Your task to perform on an android device: make emails show in primary in the gmail app Image 0: 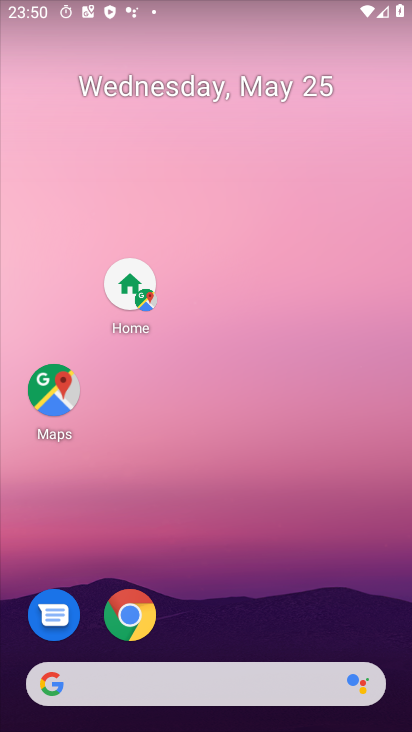
Step 0: press home button
Your task to perform on an android device: make emails show in primary in the gmail app Image 1: 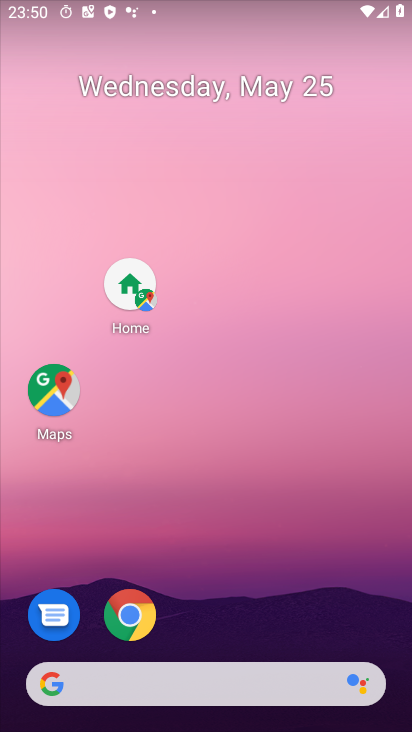
Step 1: drag from (198, 632) to (200, 224)
Your task to perform on an android device: make emails show in primary in the gmail app Image 2: 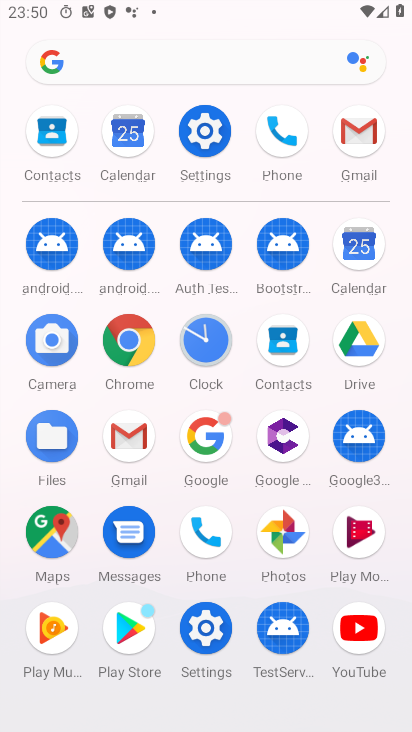
Step 2: click (359, 132)
Your task to perform on an android device: make emails show in primary in the gmail app Image 3: 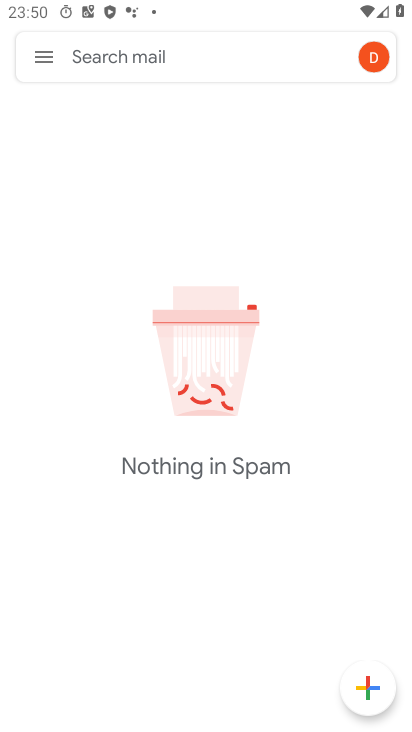
Step 3: click (35, 56)
Your task to perform on an android device: make emails show in primary in the gmail app Image 4: 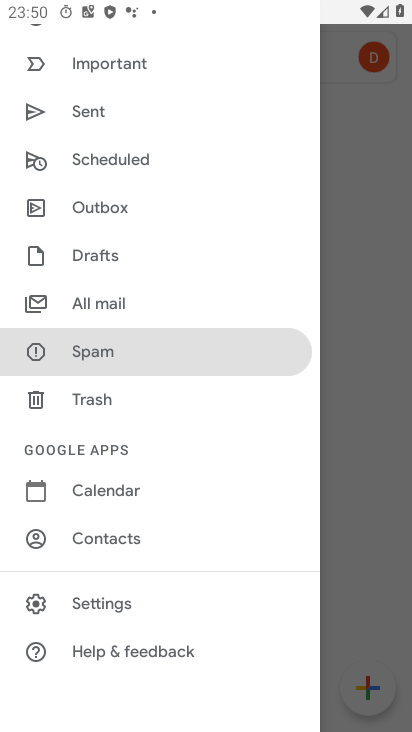
Step 4: click (92, 310)
Your task to perform on an android device: make emails show in primary in the gmail app Image 5: 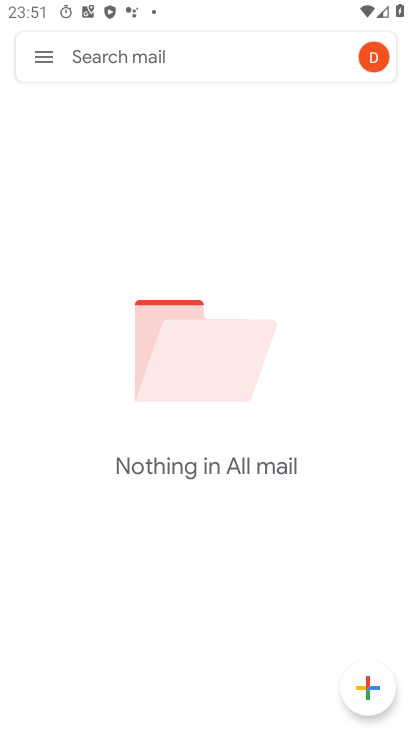
Step 5: task complete